Your task to perform on an android device: check out phone information Image 0: 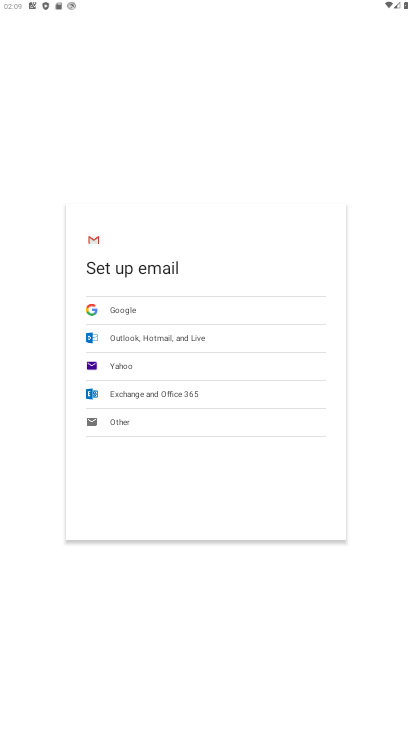
Step 0: press home button
Your task to perform on an android device: check out phone information Image 1: 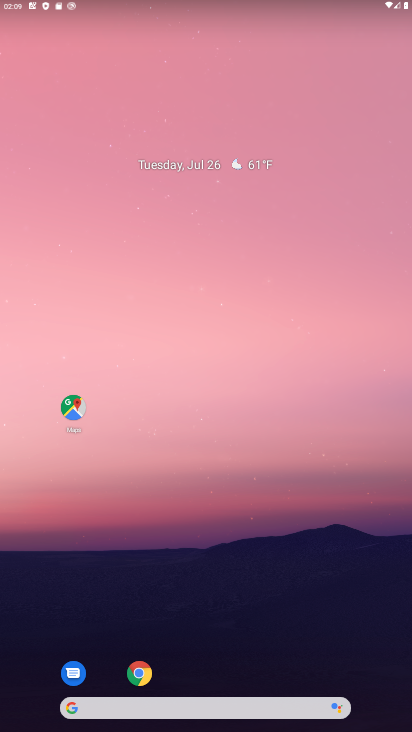
Step 1: drag from (220, 723) to (236, 157)
Your task to perform on an android device: check out phone information Image 2: 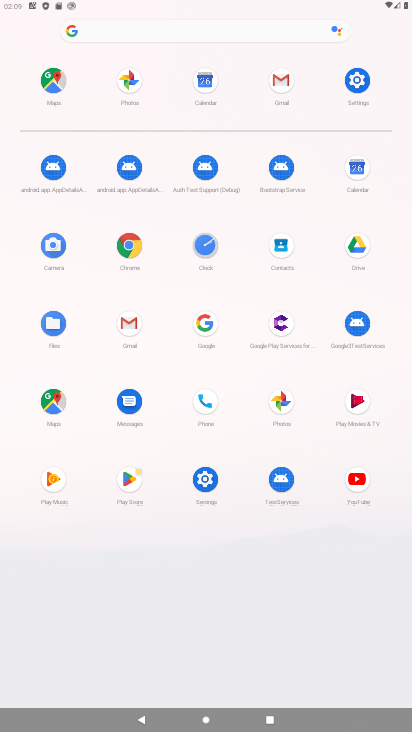
Step 2: click (357, 75)
Your task to perform on an android device: check out phone information Image 3: 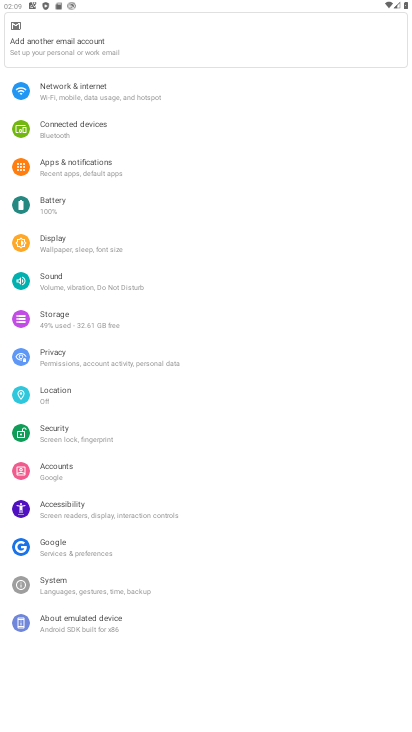
Step 3: click (83, 621)
Your task to perform on an android device: check out phone information Image 4: 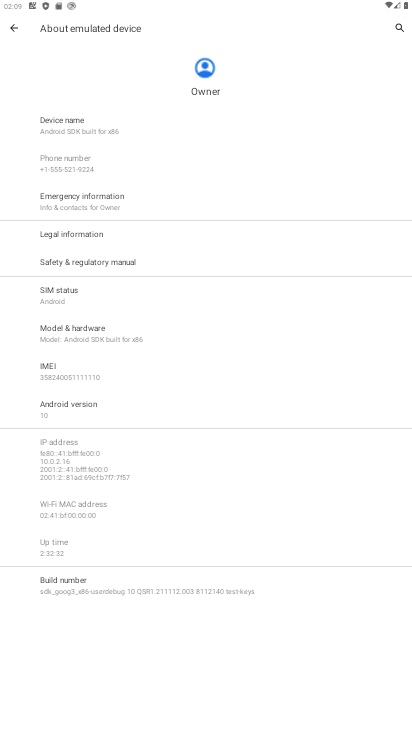
Step 4: task complete